Your task to perform on an android device: What is the news today? Image 0: 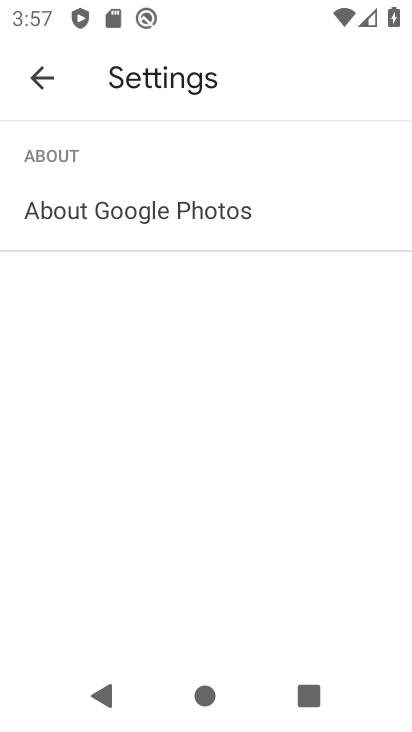
Step 0: press home button
Your task to perform on an android device: What is the news today? Image 1: 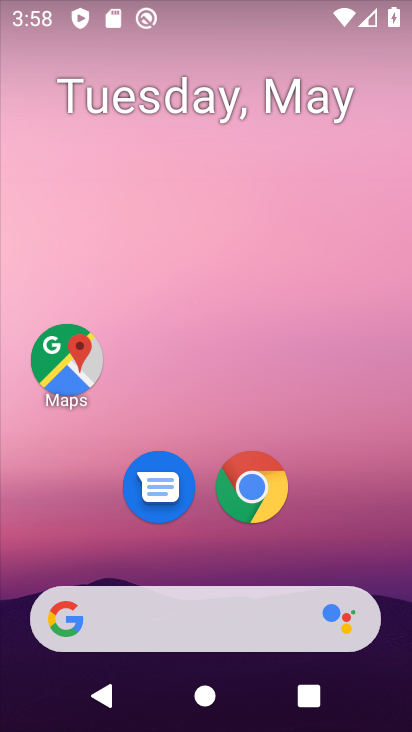
Step 1: click (246, 487)
Your task to perform on an android device: What is the news today? Image 2: 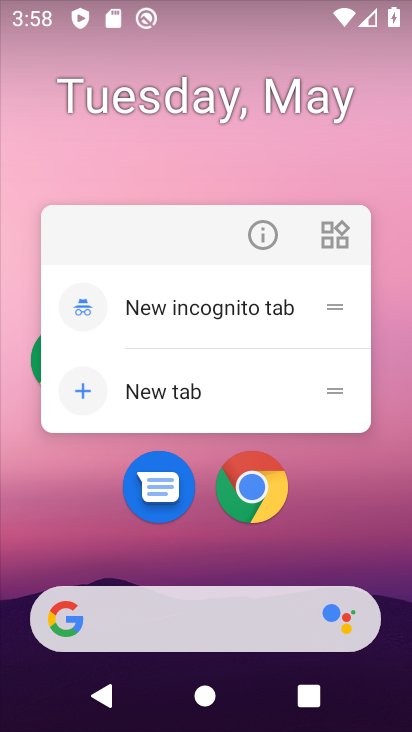
Step 2: click (245, 487)
Your task to perform on an android device: What is the news today? Image 3: 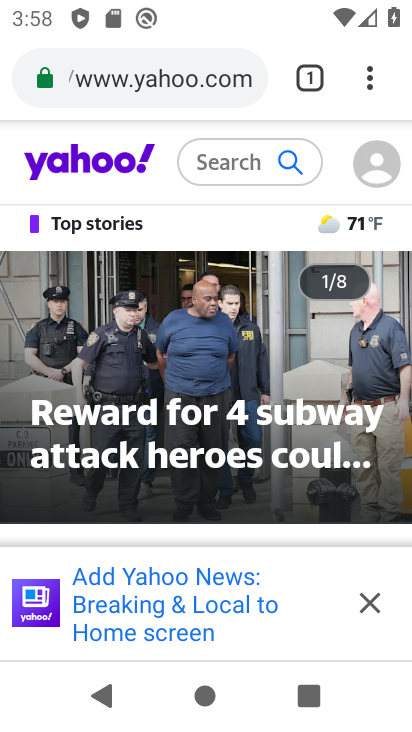
Step 3: click (173, 85)
Your task to perform on an android device: What is the news today? Image 4: 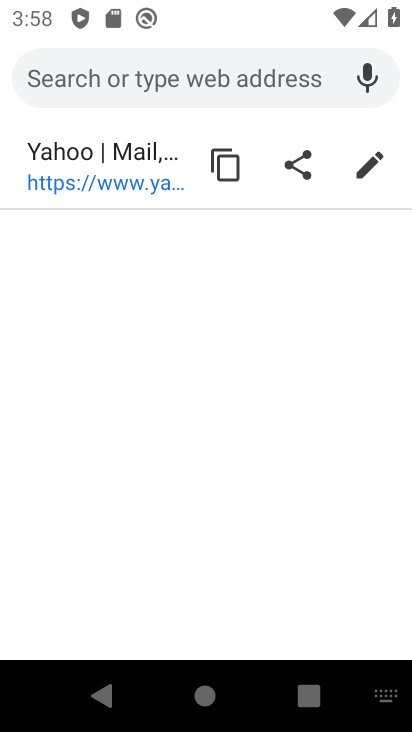
Step 4: type "news"
Your task to perform on an android device: What is the news today? Image 5: 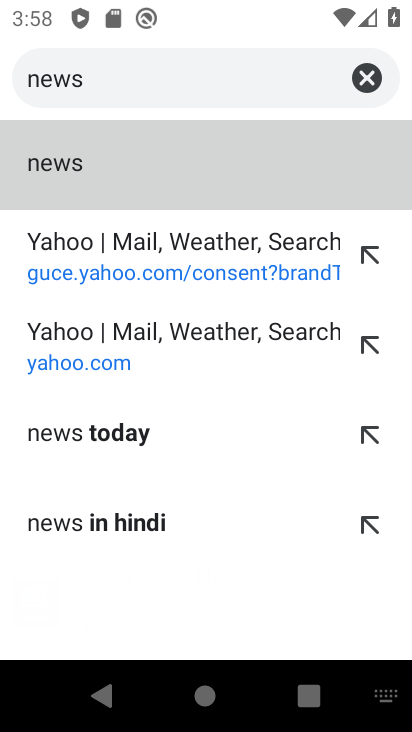
Step 5: click (44, 175)
Your task to perform on an android device: What is the news today? Image 6: 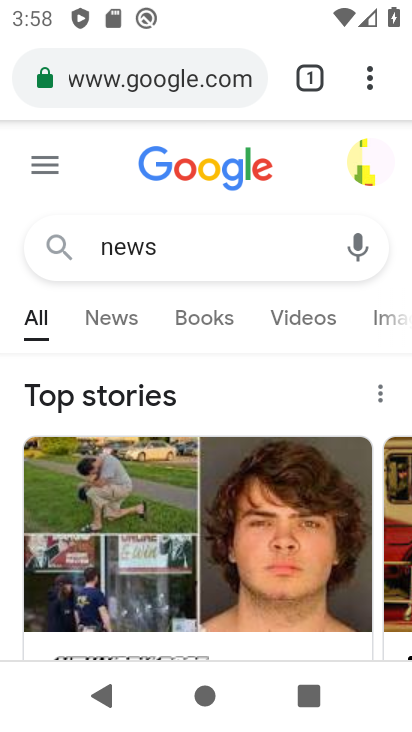
Step 6: click (116, 325)
Your task to perform on an android device: What is the news today? Image 7: 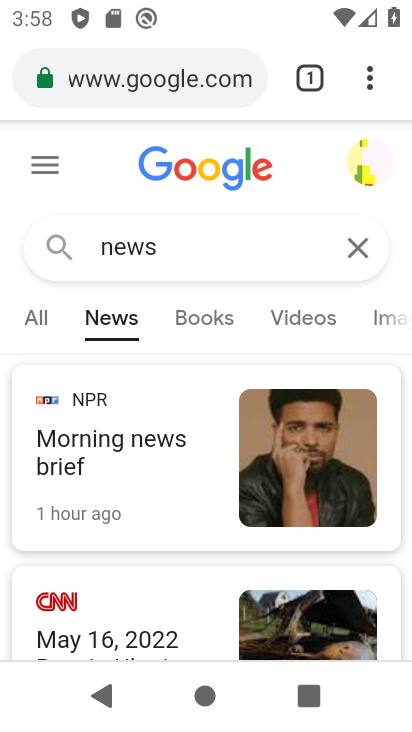
Step 7: task complete